Your task to perform on an android device: turn off location history Image 0: 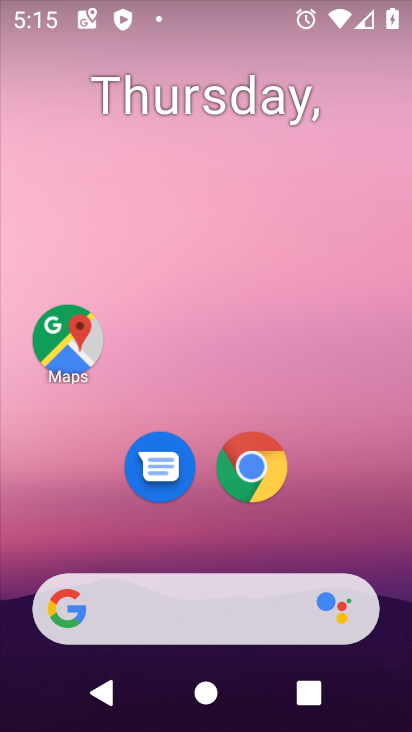
Step 0: click (89, 337)
Your task to perform on an android device: turn off location history Image 1: 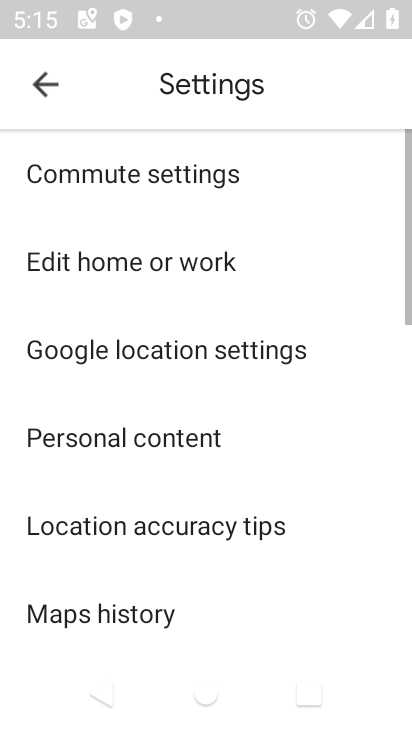
Step 1: click (53, 65)
Your task to perform on an android device: turn off location history Image 2: 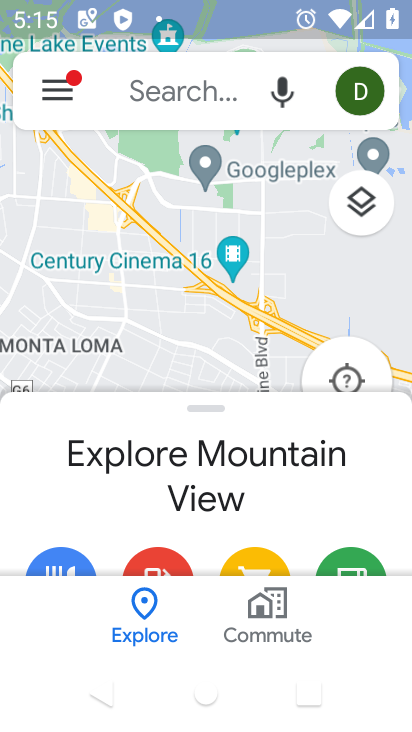
Step 2: click (78, 92)
Your task to perform on an android device: turn off location history Image 3: 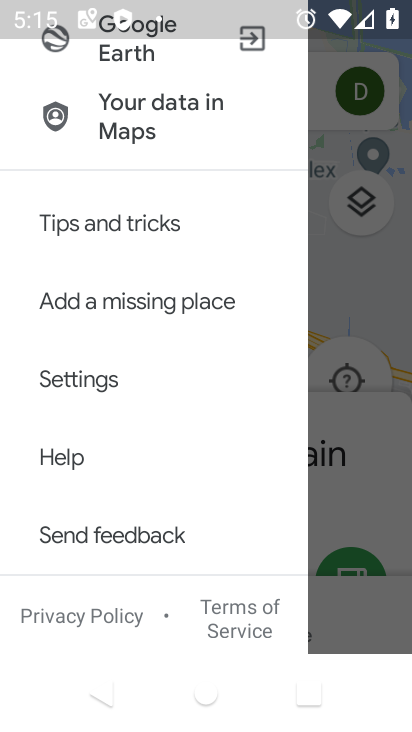
Step 3: drag from (189, 48) to (151, 626)
Your task to perform on an android device: turn off location history Image 4: 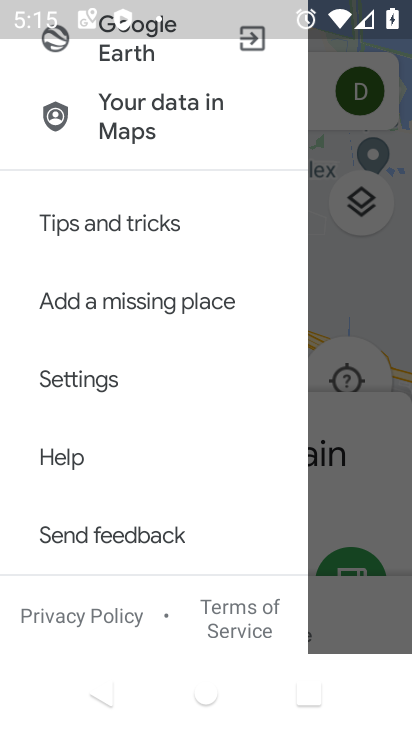
Step 4: drag from (143, 72) to (146, 552)
Your task to perform on an android device: turn off location history Image 5: 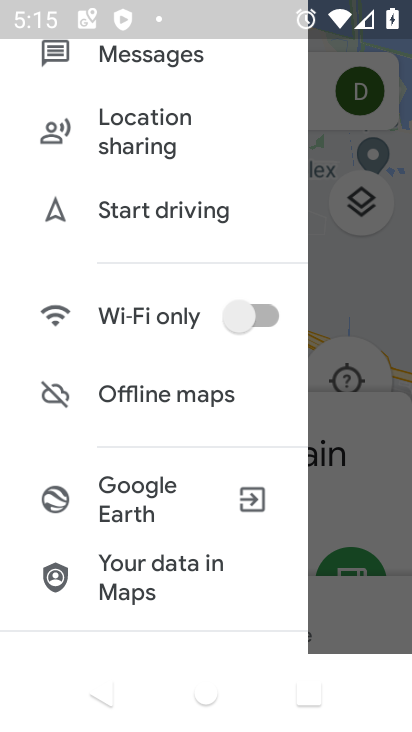
Step 5: drag from (141, 89) to (138, 547)
Your task to perform on an android device: turn off location history Image 6: 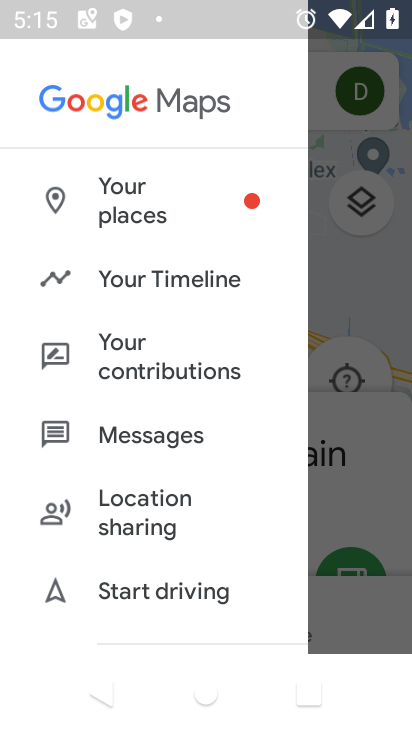
Step 6: click (152, 269)
Your task to perform on an android device: turn off location history Image 7: 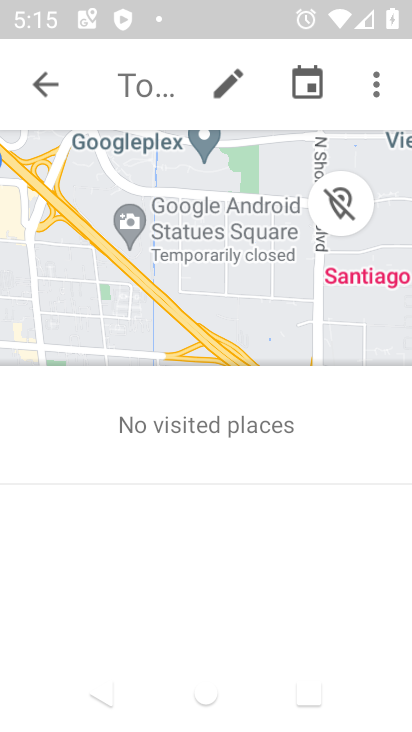
Step 7: click (385, 90)
Your task to perform on an android device: turn off location history Image 8: 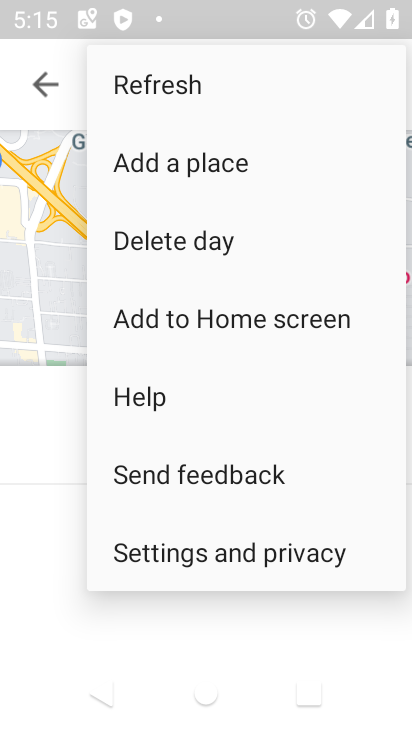
Step 8: click (344, 558)
Your task to perform on an android device: turn off location history Image 9: 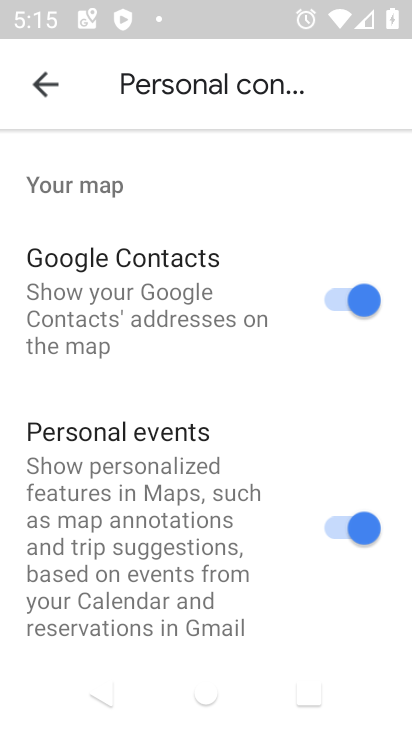
Step 9: task complete